Your task to perform on an android device: Go to Reddit.com Image 0: 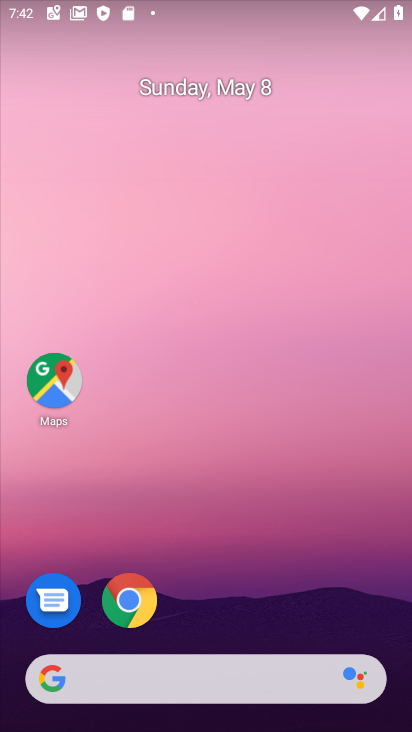
Step 0: drag from (288, 719) to (227, 248)
Your task to perform on an android device: Go to Reddit.com Image 1: 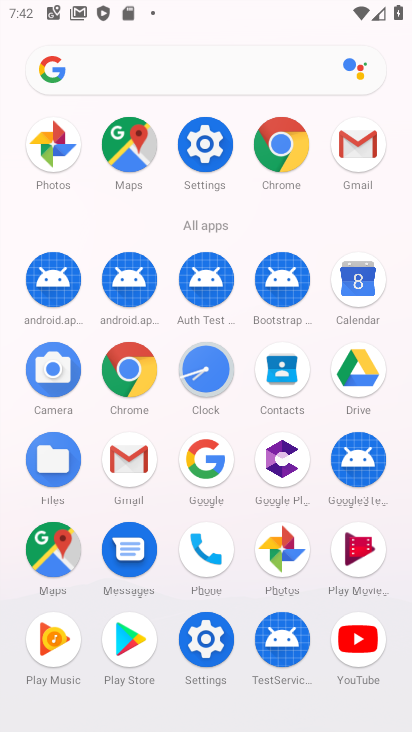
Step 1: click (274, 161)
Your task to perform on an android device: Go to Reddit.com Image 2: 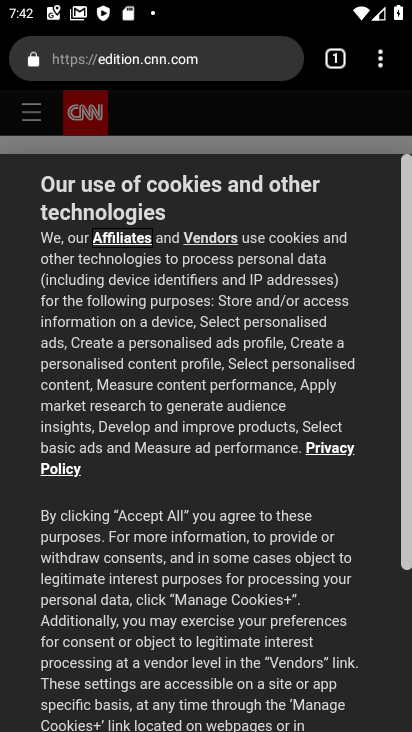
Step 2: click (335, 66)
Your task to perform on an android device: Go to Reddit.com Image 3: 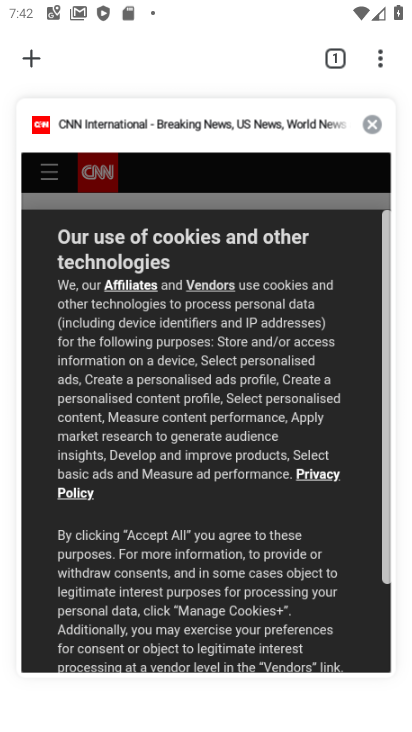
Step 3: click (30, 63)
Your task to perform on an android device: Go to Reddit.com Image 4: 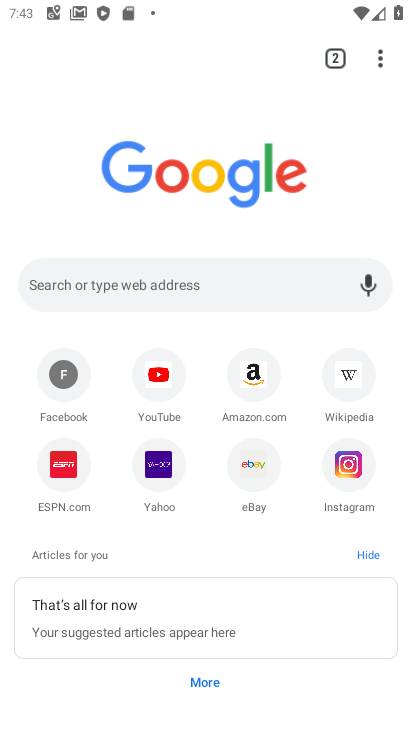
Step 4: click (140, 287)
Your task to perform on an android device: Go to Reddit.com Image 5: 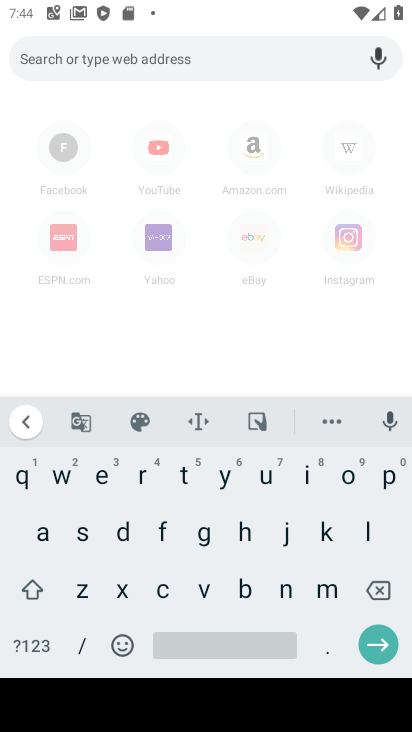
Step 5: click (138, 479)
Your task to perform on an android device: Go to Reddit.com Image 6: 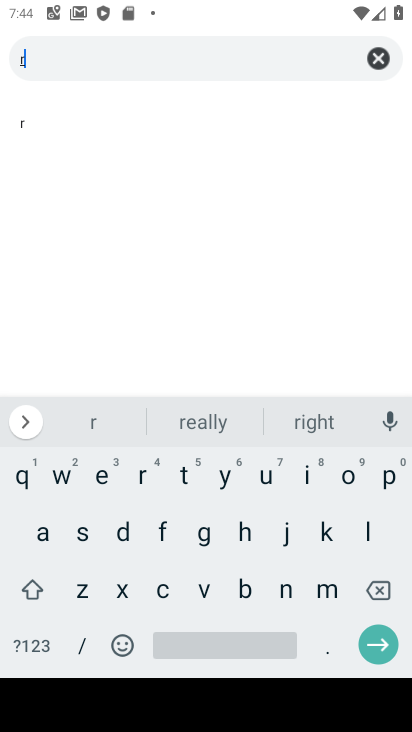
Step 6: click (100, 484)
Your task to perform on an android device: Go to Reddit.com Image 7: 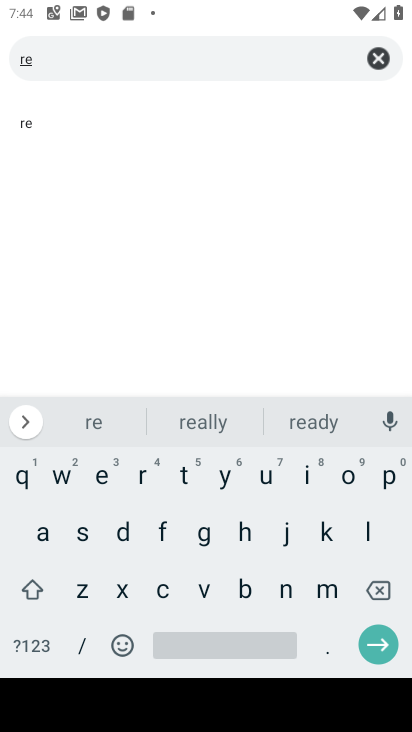
Step 7: click (121, 526)
Your task to perform on an android device: Go to Reddit.com Image 8: 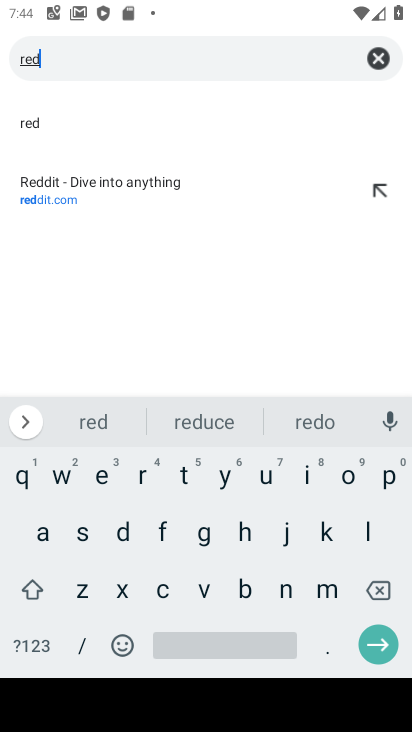
Step 8: click (156, 181)
Your task to perform on an android device: Go to Reddit.com Image 9: 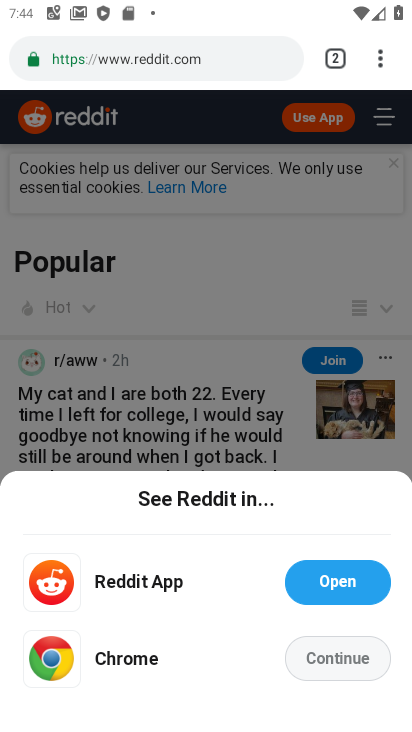
Step 9: click (331, 671)
Your task to perform on an android device: Go to Reddit.com Image 10: 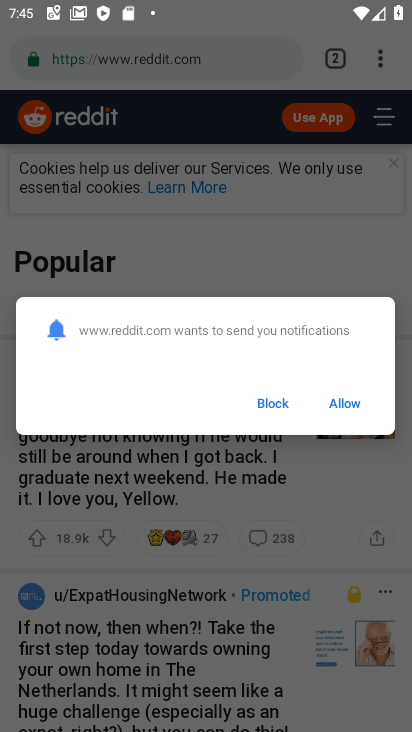
Step 10: click (275, 404)
Your task to perform on an android device: Go to Reddit.com Image 11: 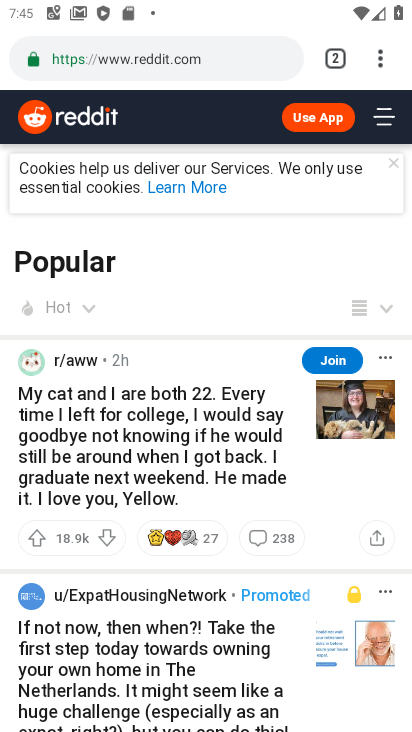
Step 11: task complete